Your task to perform on an android device: Play the last video I watched on Youtube Image 0: 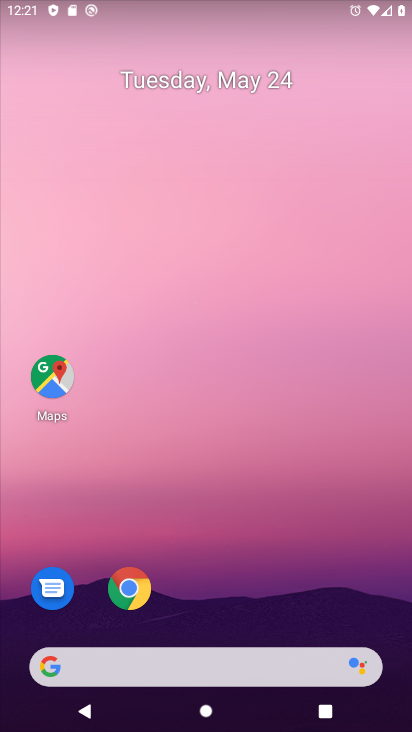
Step 0: drag from (182, 620) to (269, 122)
Your task to perform on an android device: Play the last video I watched on Youtube Image 1: 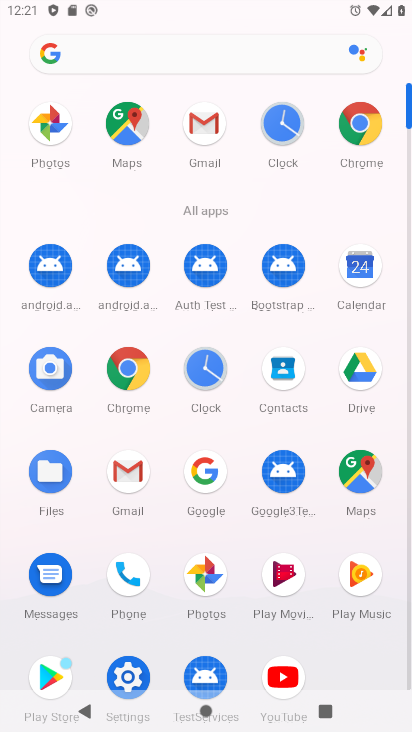
Step 1: click (292, 677)
Your task to perform on an android device: Play the last video I watched on Youtube Image 2: 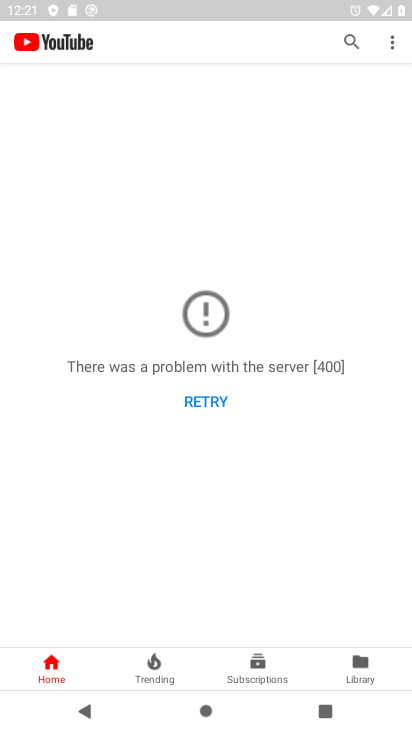
Step 2: click (381, 667)
Your task to perform on an android device: Play the last video I watched on Youtube Image 3: 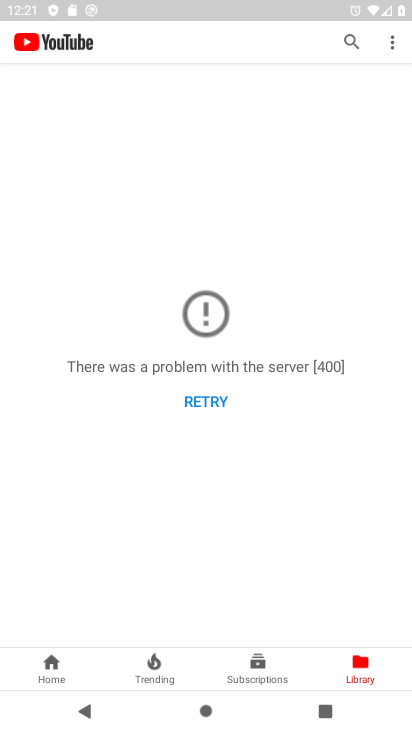
Step 3: task complete